Your task to perform on an android device: Open privacy settings Image 0: 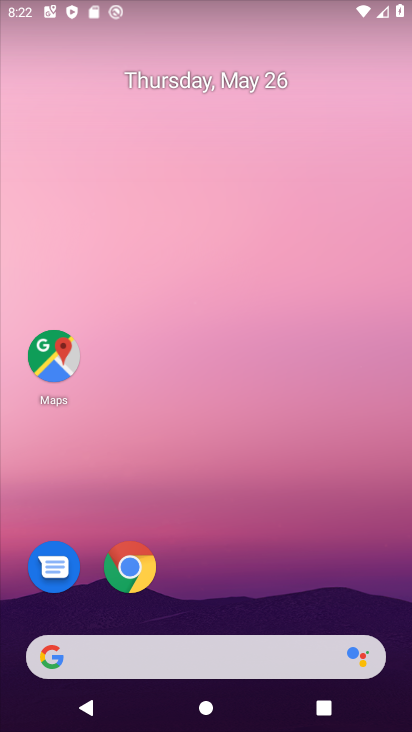
Step 0: press home button
Your task to perform on an android device: Open privacy settings Image 1: 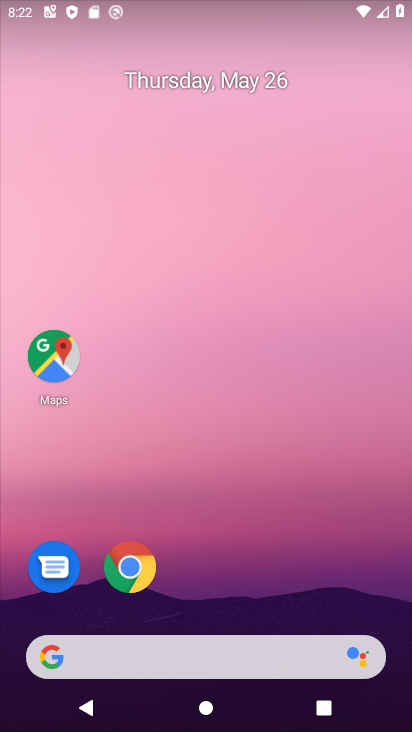
Step 1: drag from (137, 665) to (291, 62)
Your task to perform on an android device: Open privacy settings Image 2: 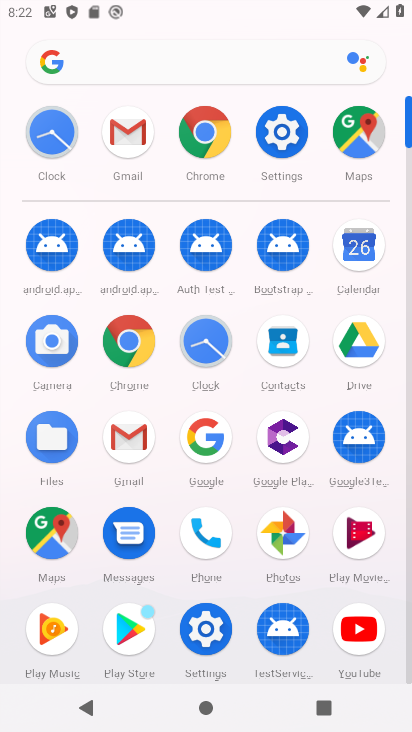
Step 2: click (288, 137)
Your task to perform on an android device: Open privacy settings Image 3: 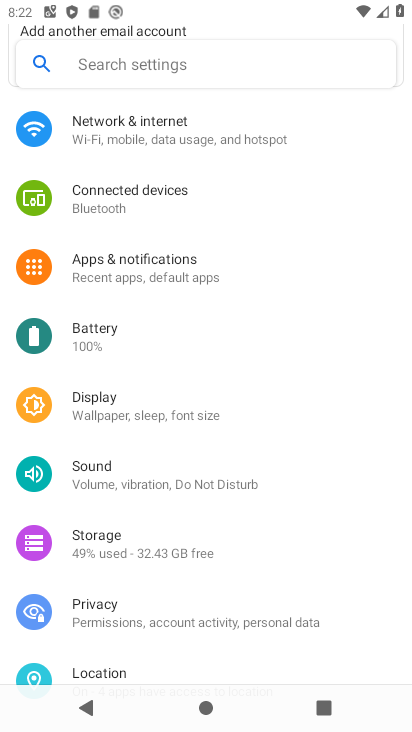
Step 3: click (127, 611)
Your task to perform on an android device: Open privacy settings Image 4: 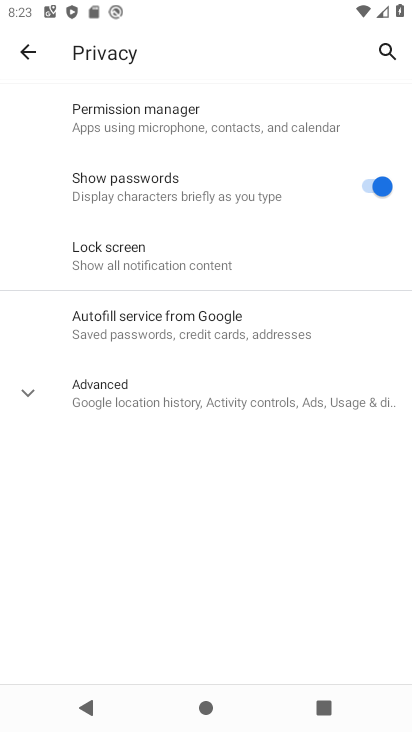
Step 4: task complete